Your task to perform on an android device: add a contact in the contacts app Image 0: 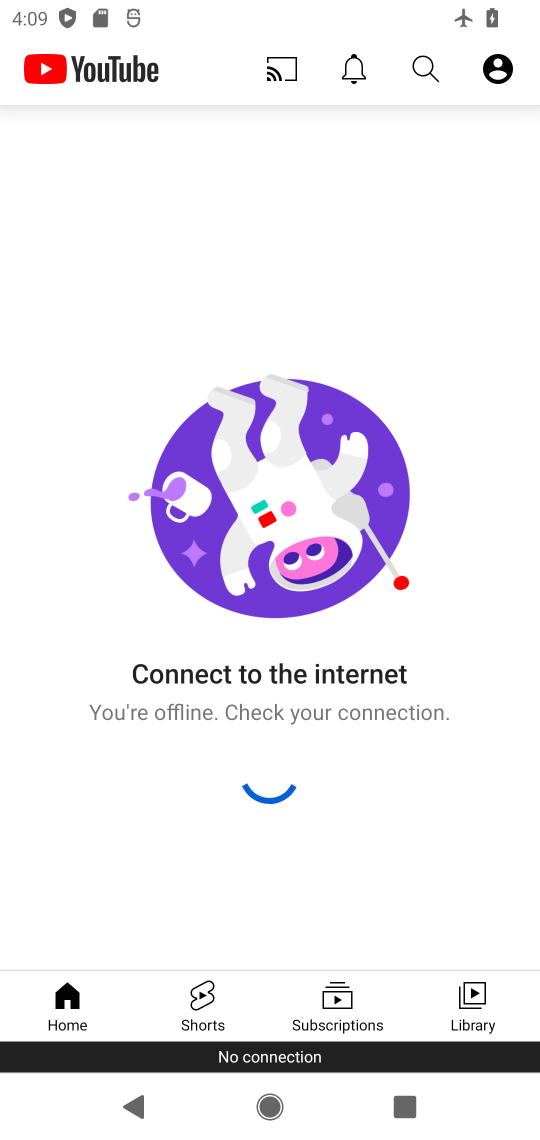
Step 0: press home button
Your task to perform on an android device: add a contact in the contacts app Image 1: 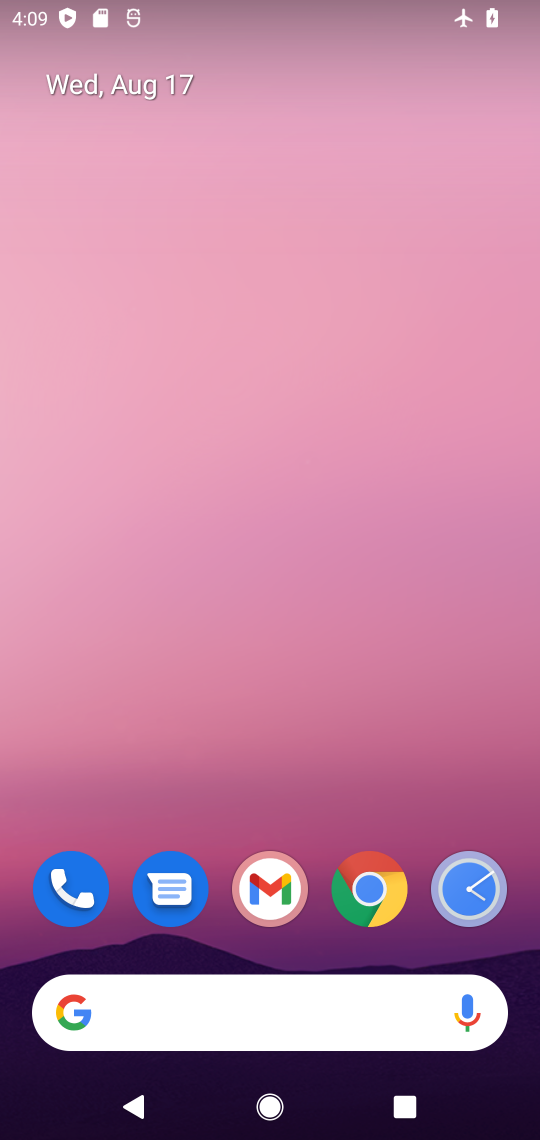
Step 1: drag from (289, 804) to (277, 53)
Your task to perform on an android device: add a contact in the contacts app Image 2: 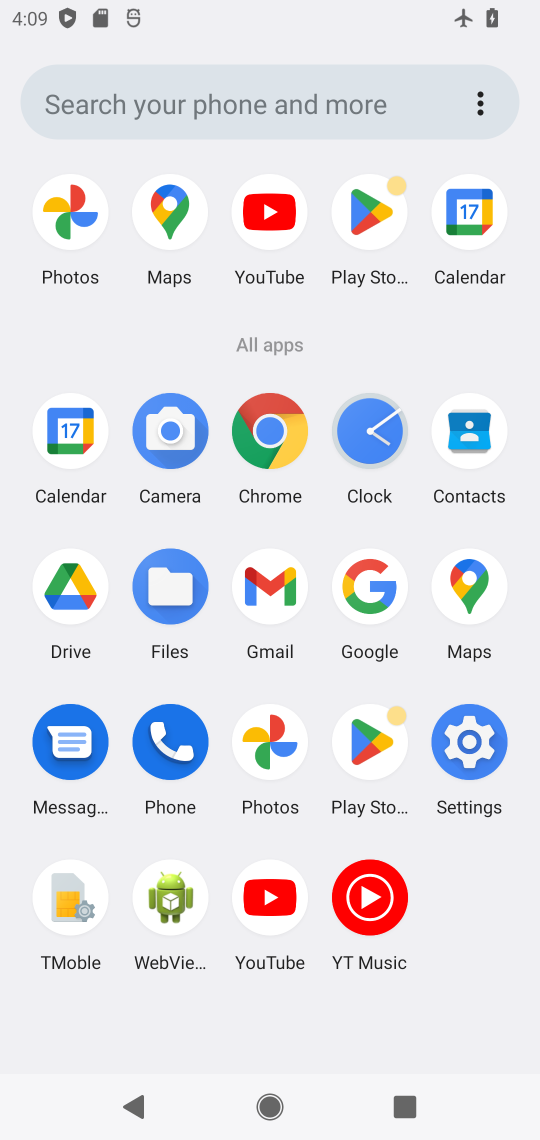
Step 2: click (462, 445)
Your task to perform on an android device: add a contact in the contacts app Image 3: 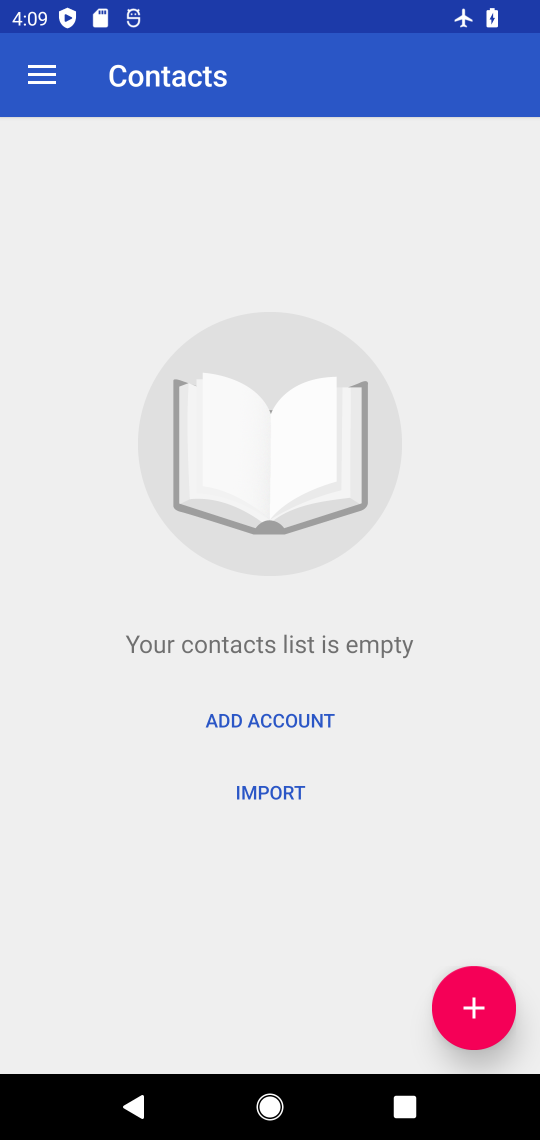
Step 3: click (476, 1015)
Your task to perform on an android device: add a contact in the contacts app Image 4: 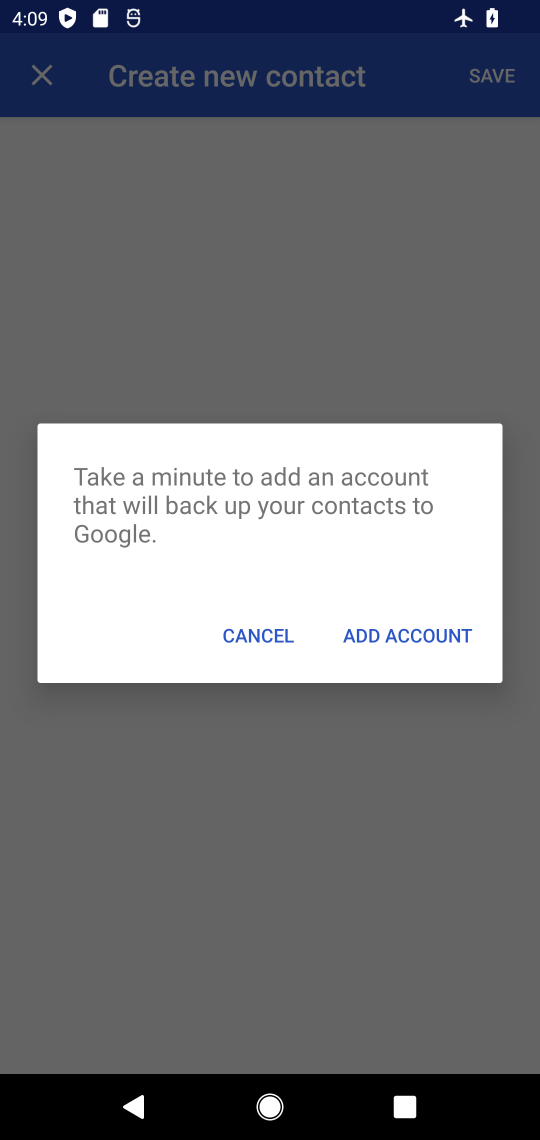
Step 4: click (242, 631)
Your task to perform on an android device: add a contact in the contacts app Image 5: 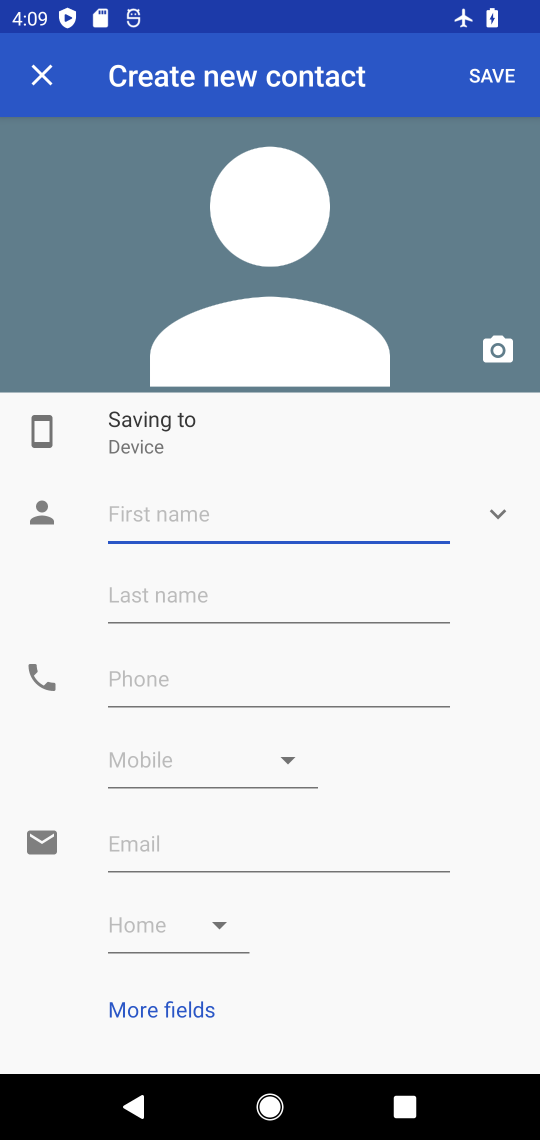
Step 5: type "nn"
Your task to perform on an android device: add a contact in the contacts app Image 6: 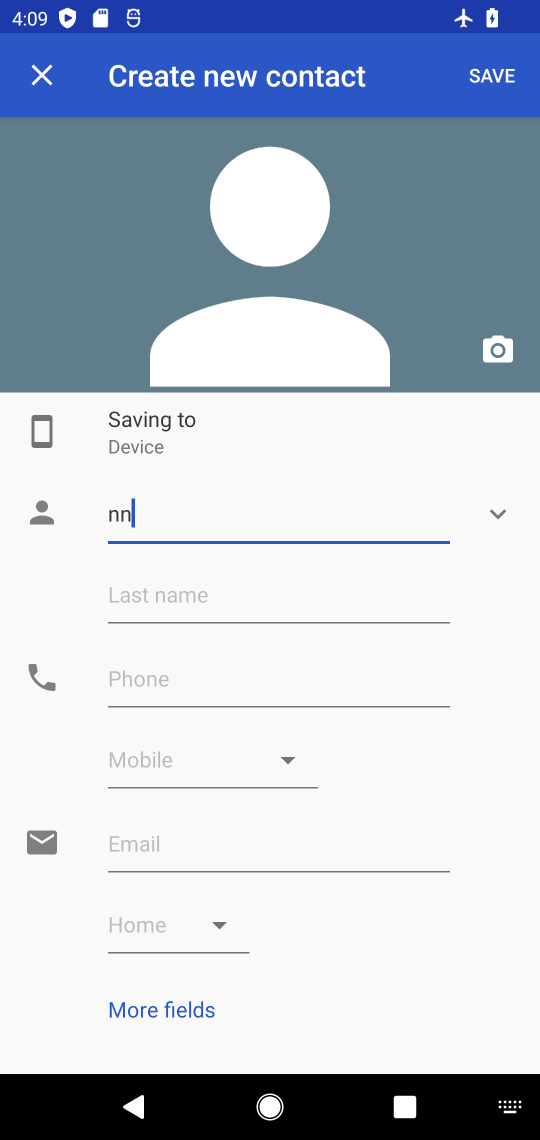
Step 6: click (181, 671)
Your task to perform on an android device: add a contact in the contacts app Image 7: 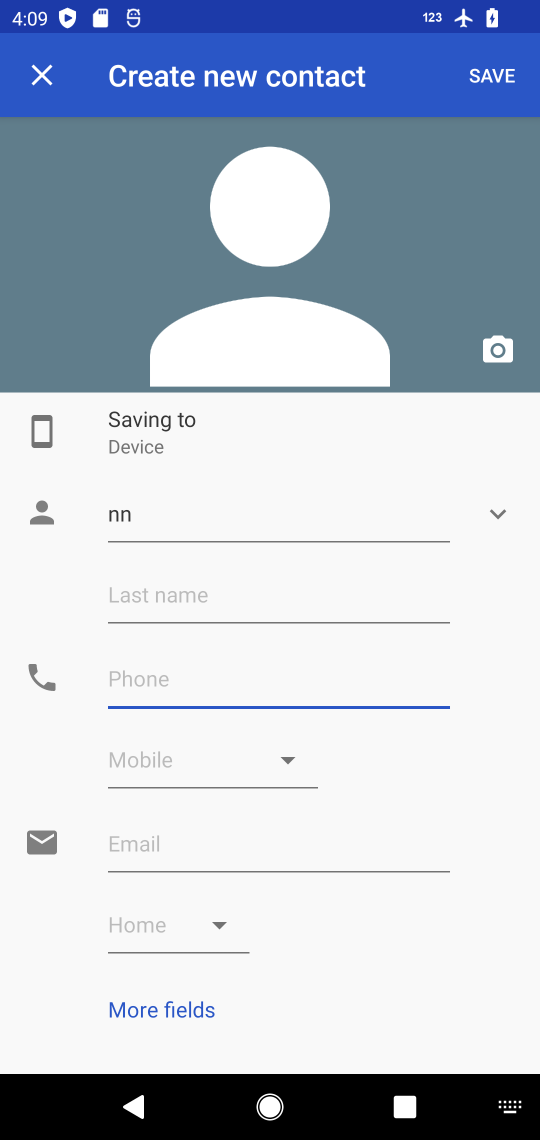
Step 7: type "8"
Your task to perform on an android device: add a contact in the contacts app Image 8: 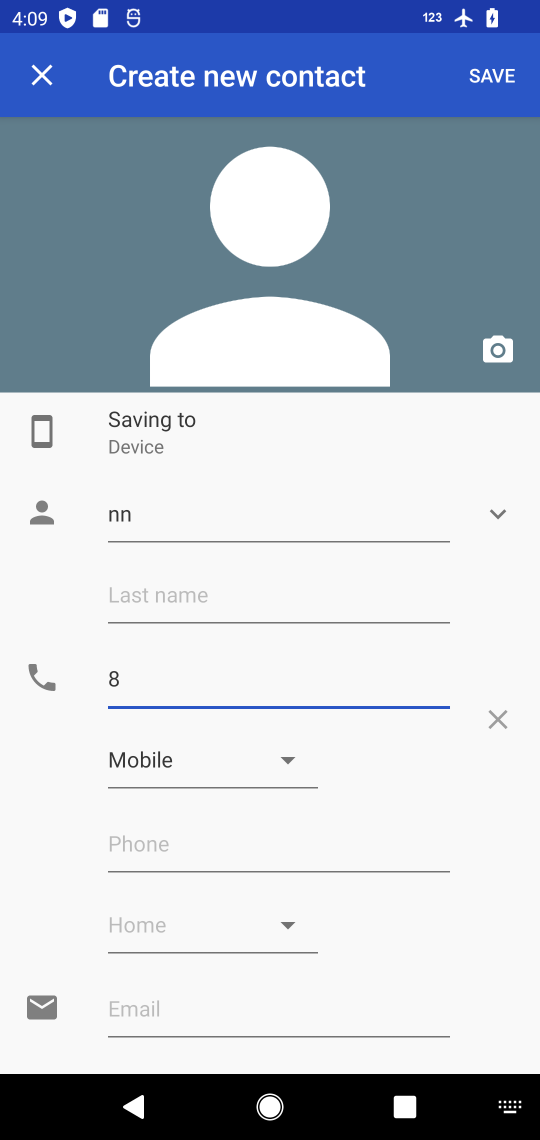
Step 8: click (507, 66)
Your task to perform on an android device: add a contact in the contacts app Image 9: 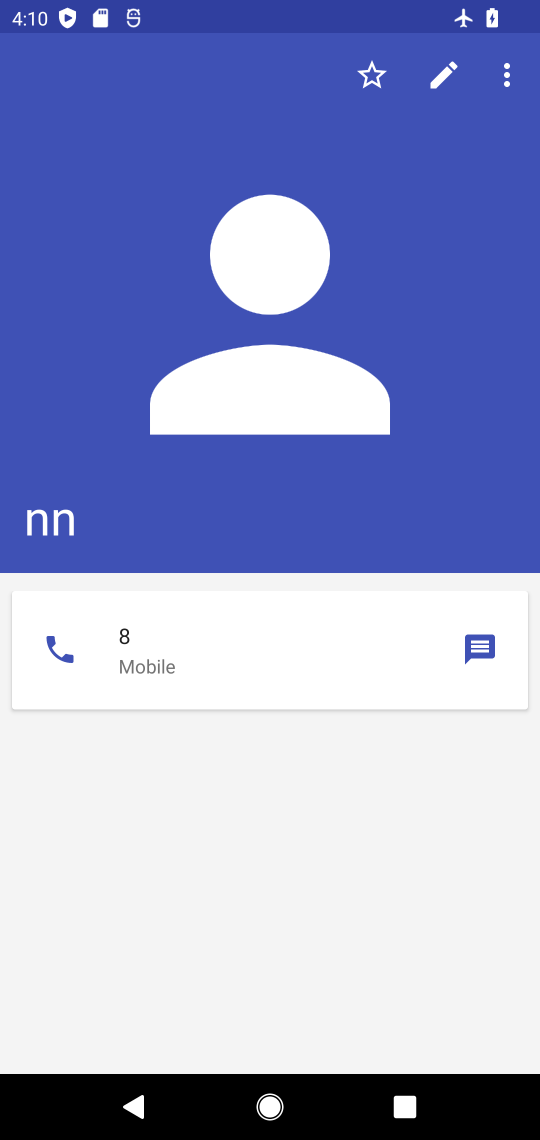
Step 9: task complete